Your task to perform on an android device: Show me recent news Image 0: 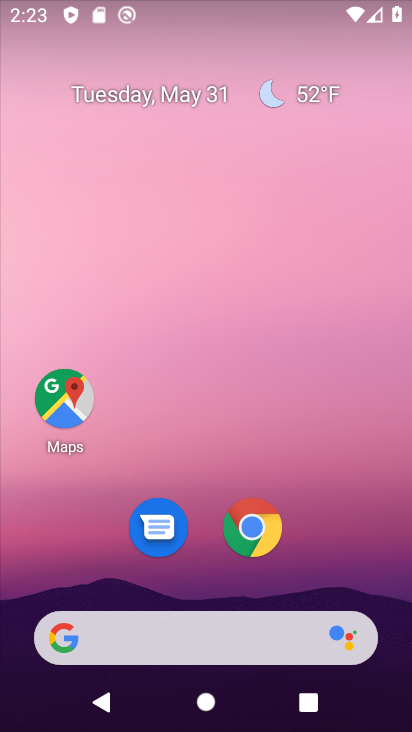
Step 0: drag from (11, 218) to (370, 197)
Your task to perform on an android device: Show me recent news Image 1: 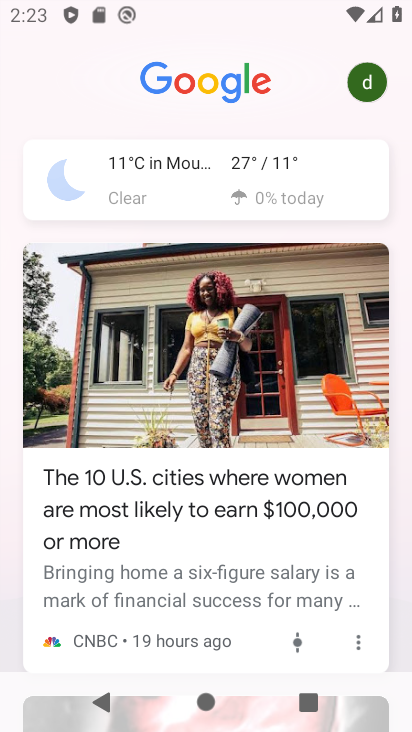
Step 1: task complete